Your task to perform on an android device: find snoozed emails in the gmail app Image 0: 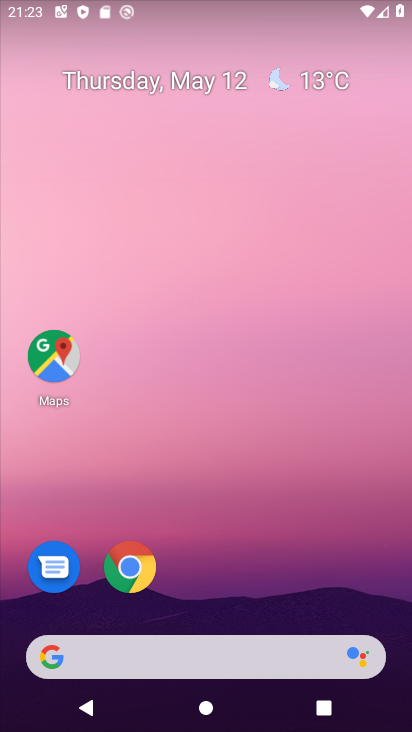
Step 0: press home button
Your task to perform on an android device: find snoozed emails in the gmail app Image 1: 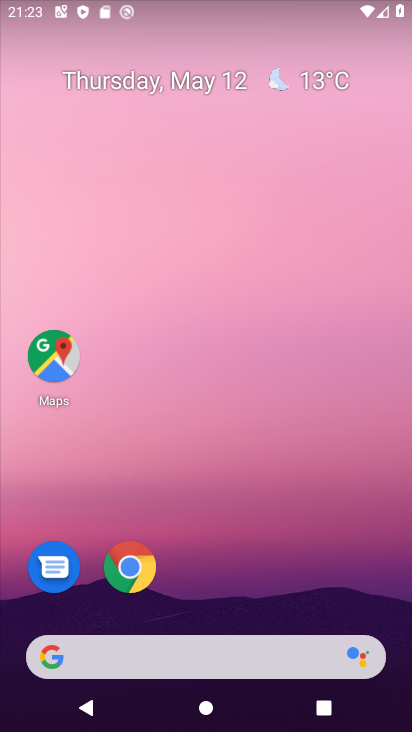
Step 1: press back button
Your task to perform on an android device: find snoozed emails in the gmail app Image 2: 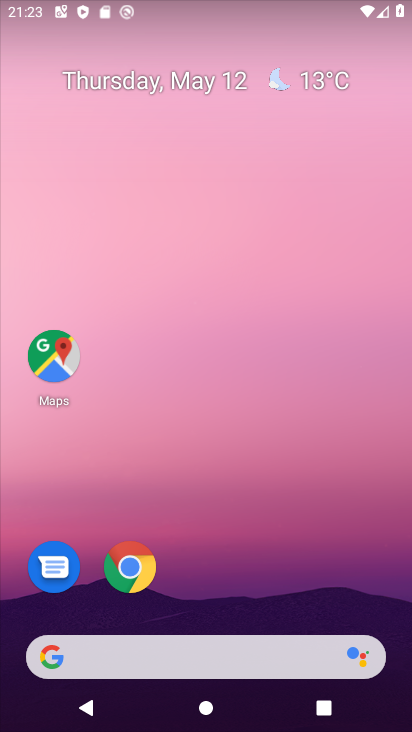
Step 2: drag from (239, 89) to (242, 25)
Your task to perform on an android device: find snoozed emails in the gmail app Image 3: 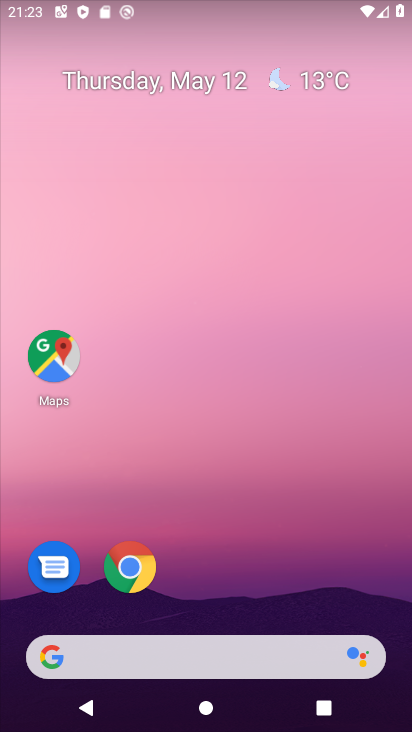
Step 3: drag from (217, 605) to (234, 110)
Your task to perform on an android device: find snoozed emails in the gmail app Image 4: 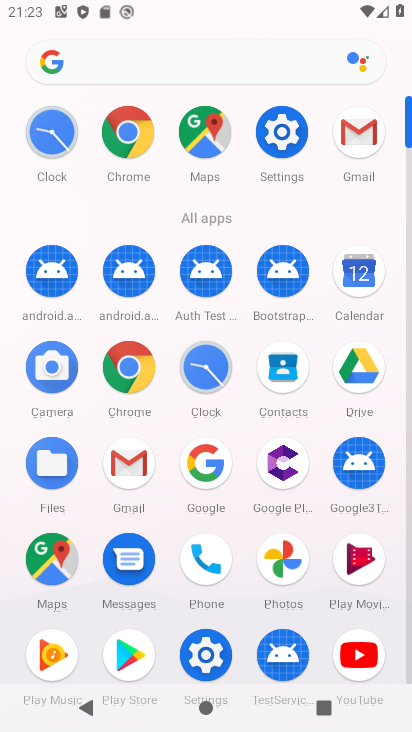
Step 4: click (356, 124)
Your task to perform on an android device: find snoozed emails in the gmail app Image 5: 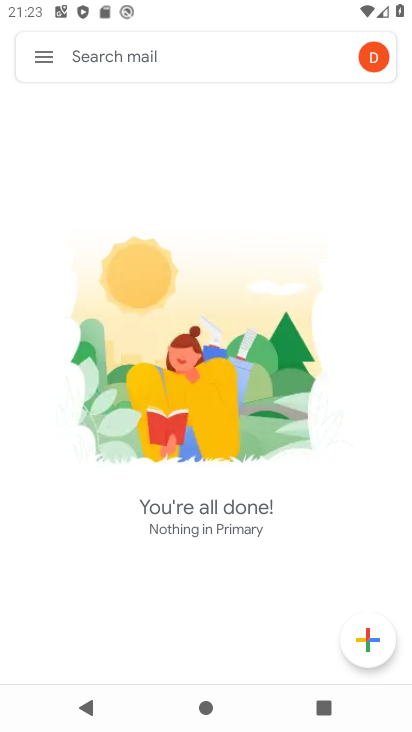
Step 5: click (44, 58)
Your task to perform on an android device: find snoozed emails in the gmail app Image 6: 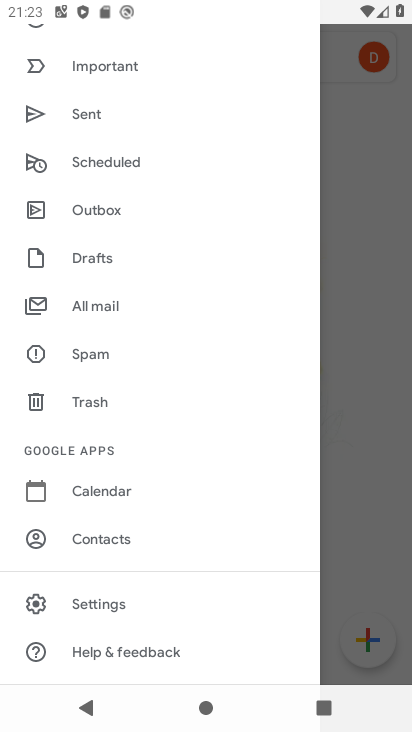
Step 6: drag from (130, 188) to (155, 619)
Your task to perform on an android device: find snoozed emails in the gmail app Image 7: 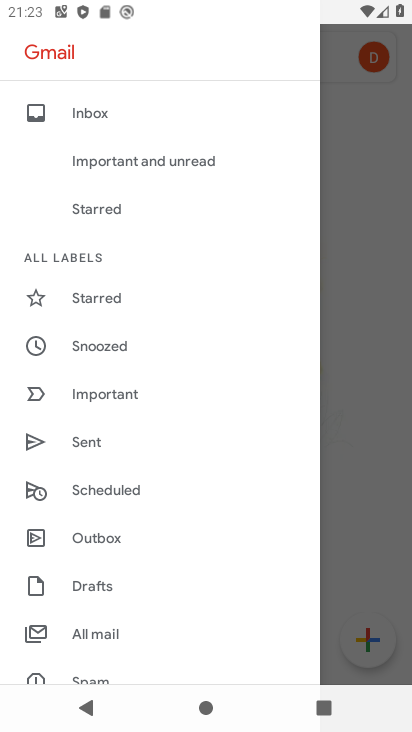
Step 7: click (139, 341)
Your task to perform on an android device: find snoozed emails in the gmail app Image 8: 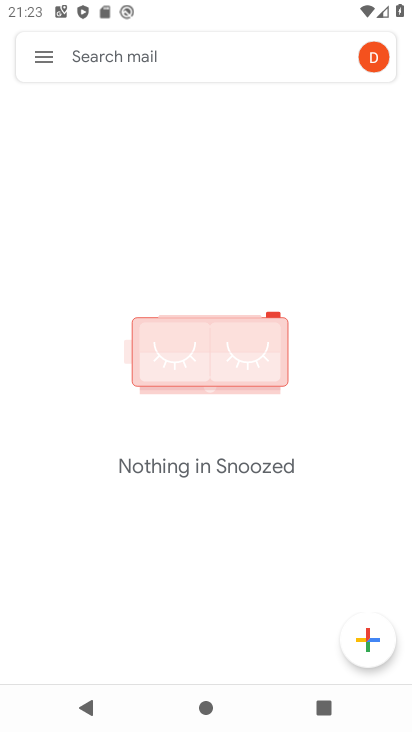
Step 8: task complete